Your task to perform on an android device: Is it going to rain today? Image 0: 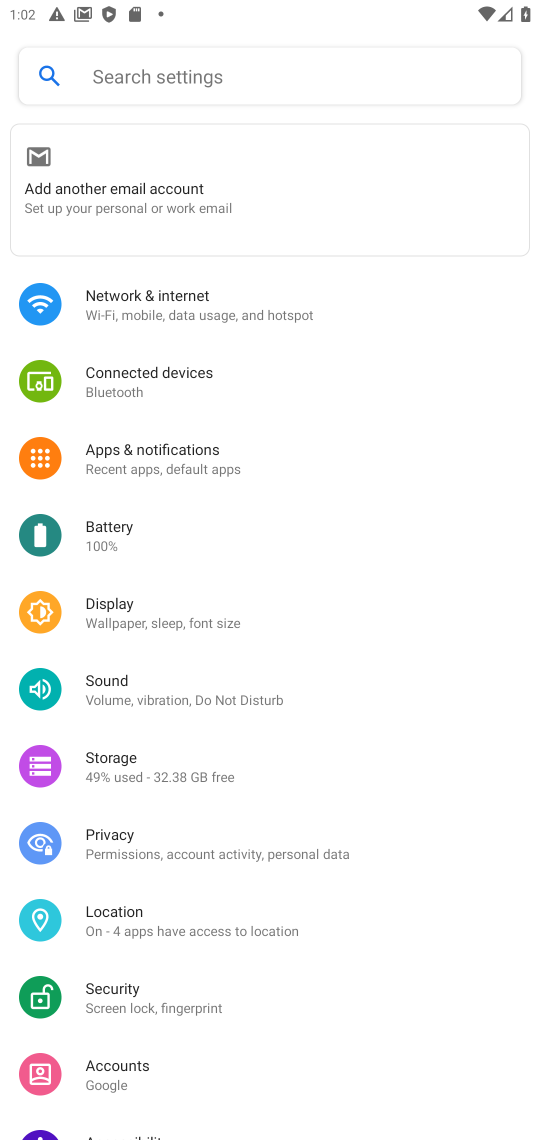
Step 0: press home button
Your task to perform on an android device: Is it going to rain today? Image 1: 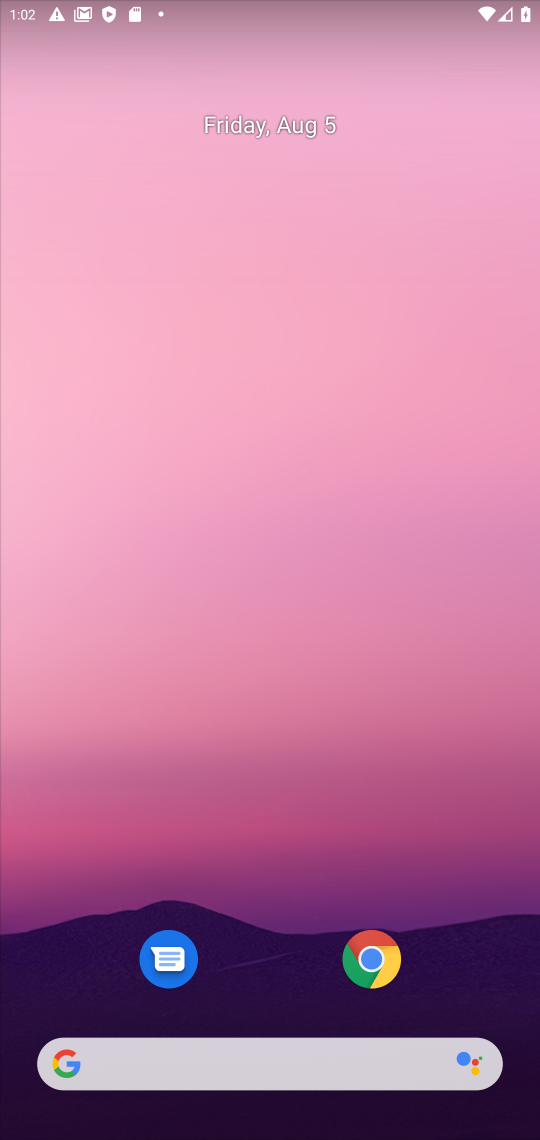
Step 1: click (353, 1060)
Your task to perform on an android device: Is it going to rain today? Image 2: 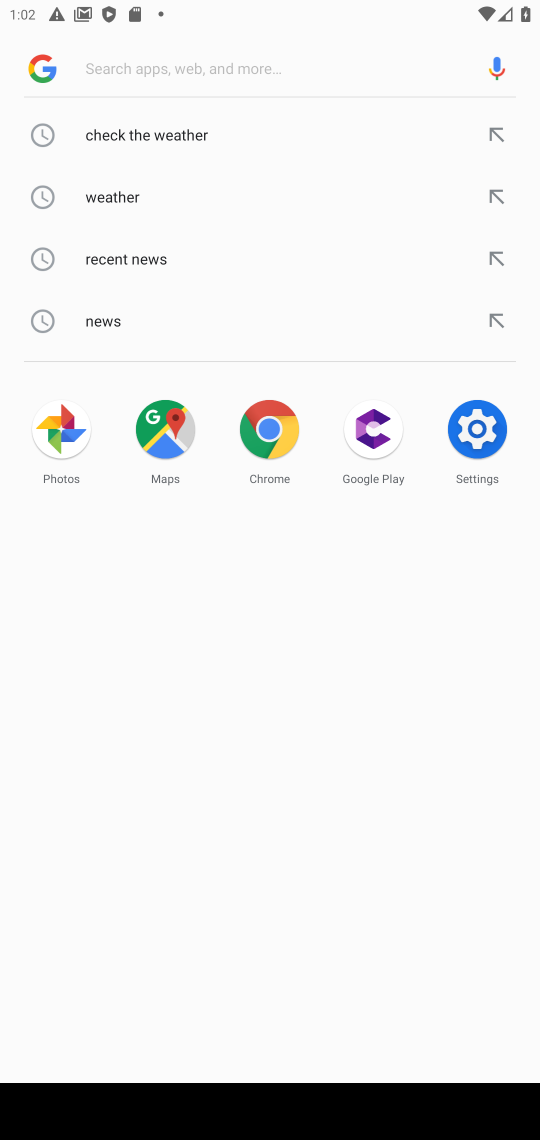
Step 2: type "Is it going to rain today?"
Your task to perform on an android device: Is it going to rain today? Image 3: 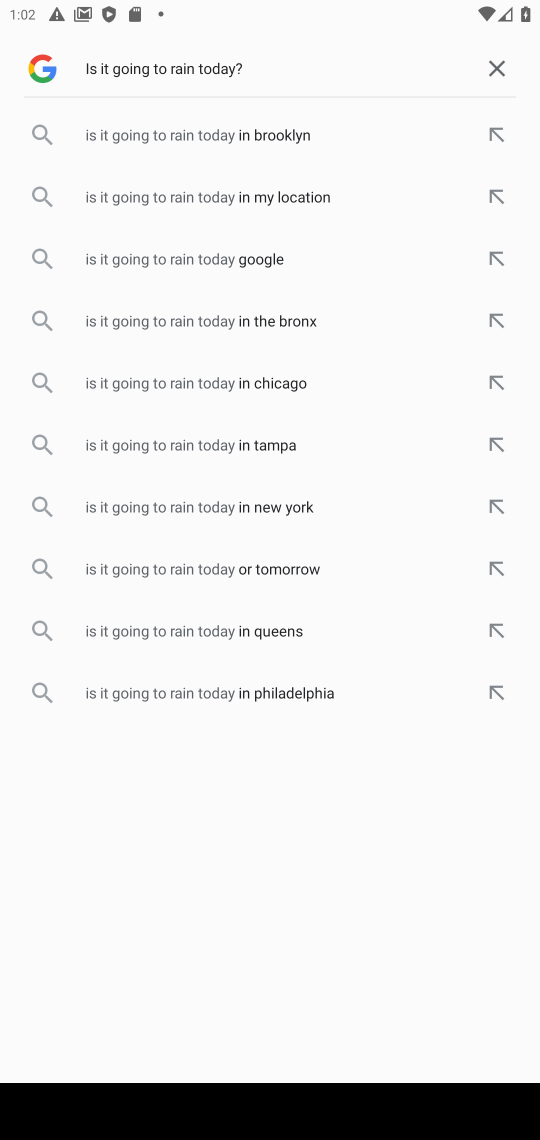
Step 3: type ""
Your task to perform on an android device: Is it going to rain today? Image 4: 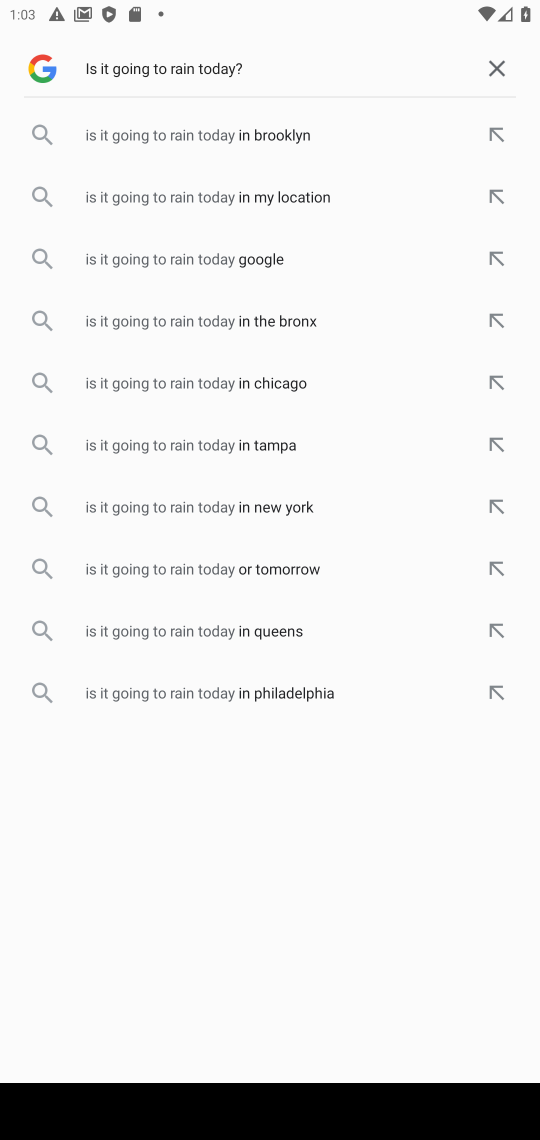
Step 4: type ""
Your task to perform on an android device: Is it going to rain today? Image 5: 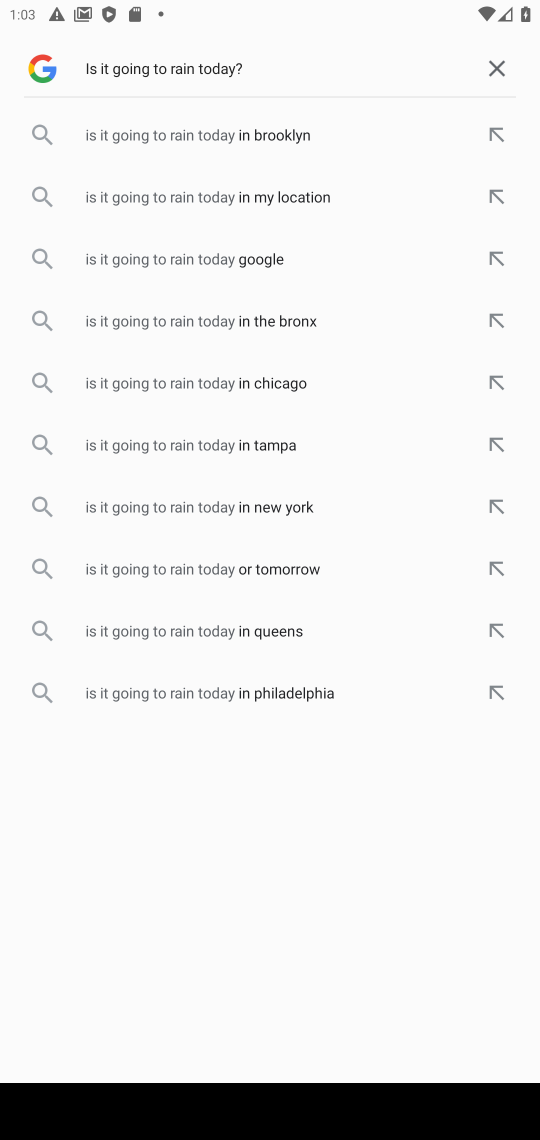
Step 5: type ""
Your task to perform on an android device: Is it going to rain today? Image 6: 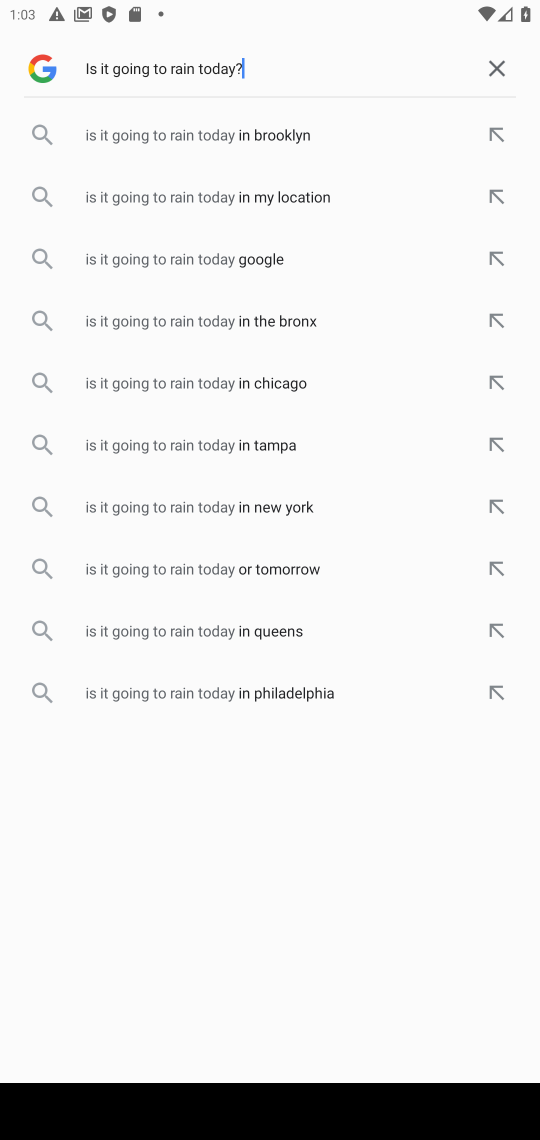
Step 6: type ""
Your task to perform on an android device: Is it going to rain today? Image 7: 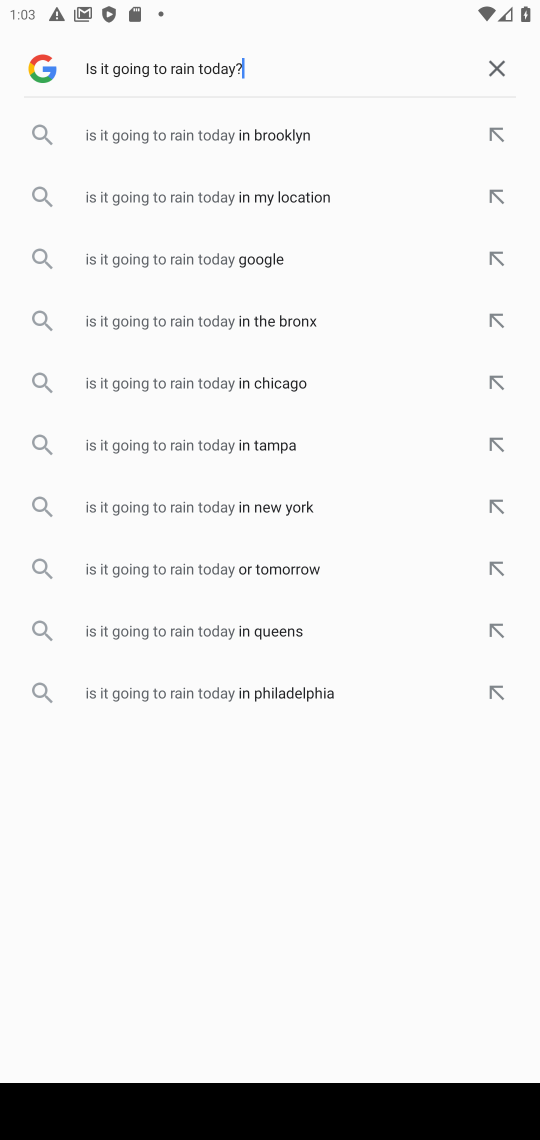
Step 7: press enter
Your task to perform on an android device: Is it going to rain today? Image 8: 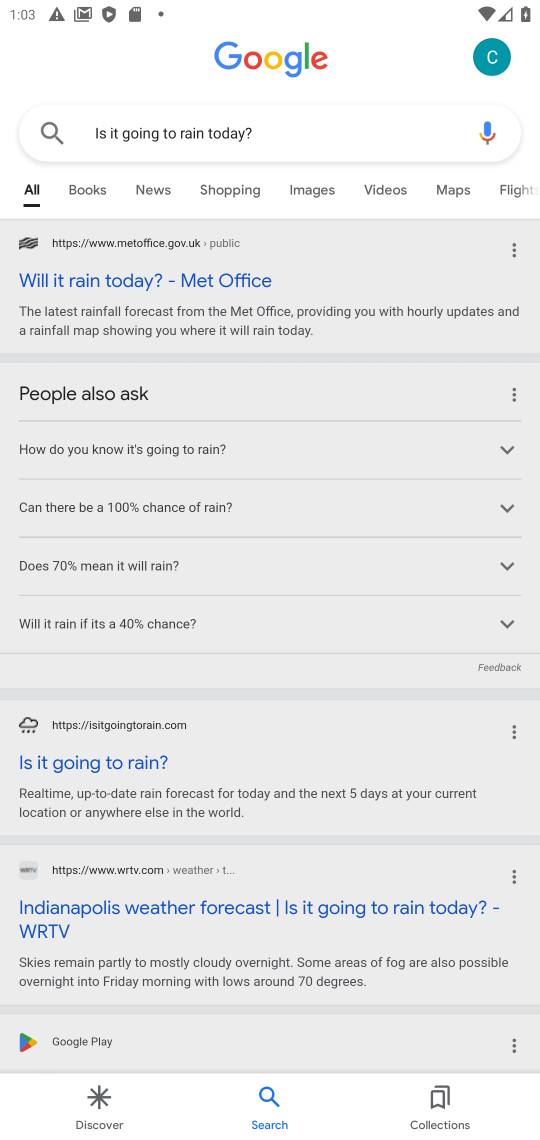
Step 8: task complete